Your task to perform on an android device: search for starred emails in the gmail app Image 0: 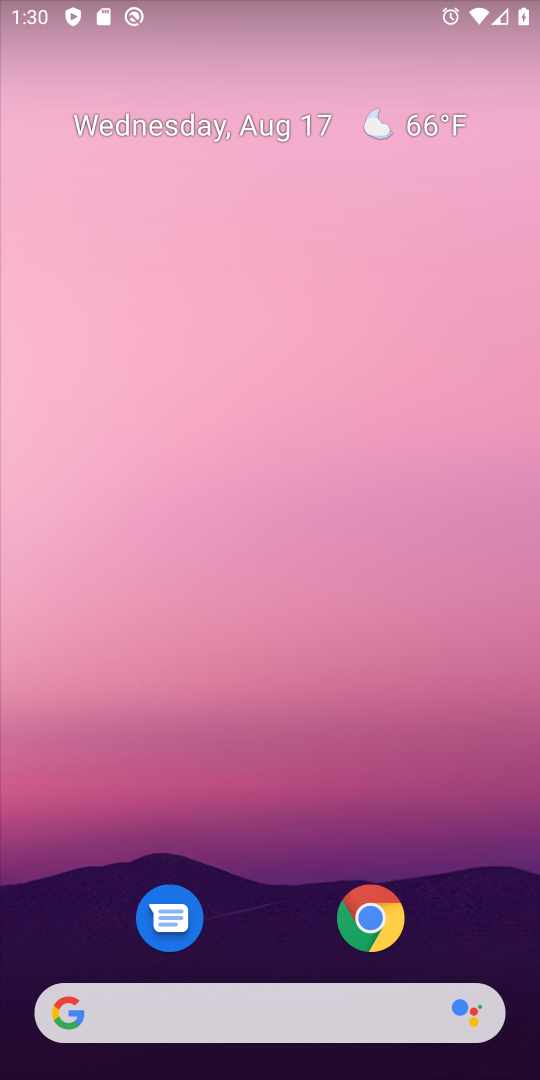
Step 0: click (276, 1004)
Your task to perform on an android device: search for starred emails in the gmail app Image 1: 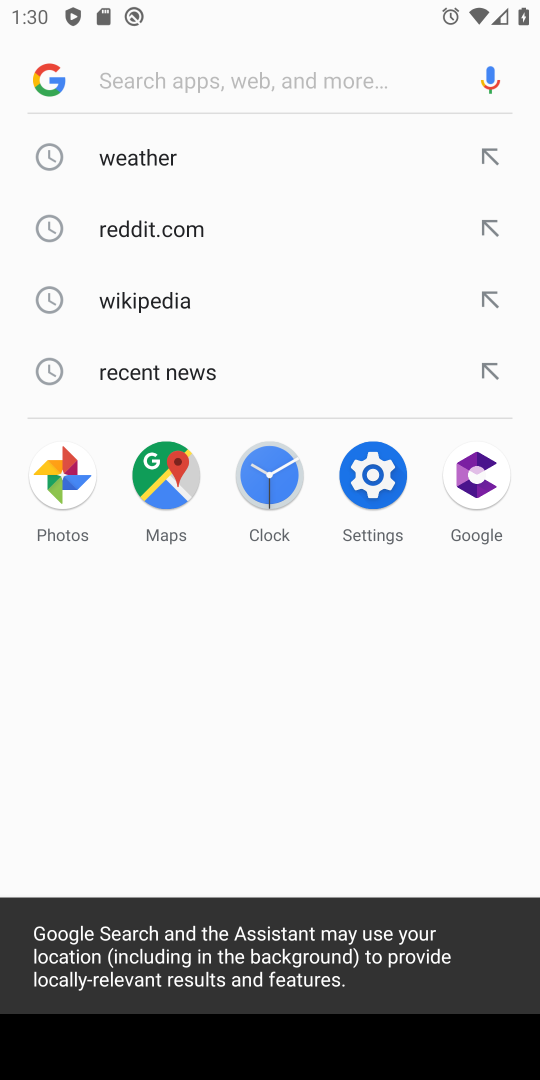
Step 1: press back button
Your task to perform on an android device: search for starred emails in the gmail app Image 2: 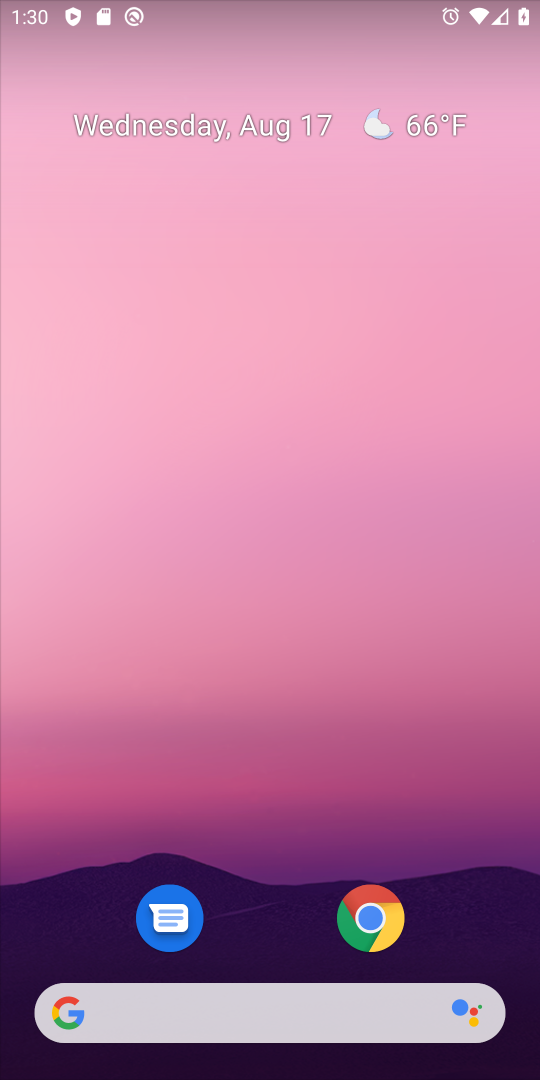
Step 2: drag from (255, 999) to (418, 7)
Your task to perform on an android device: search for starred emails in the gmail app Image 3: 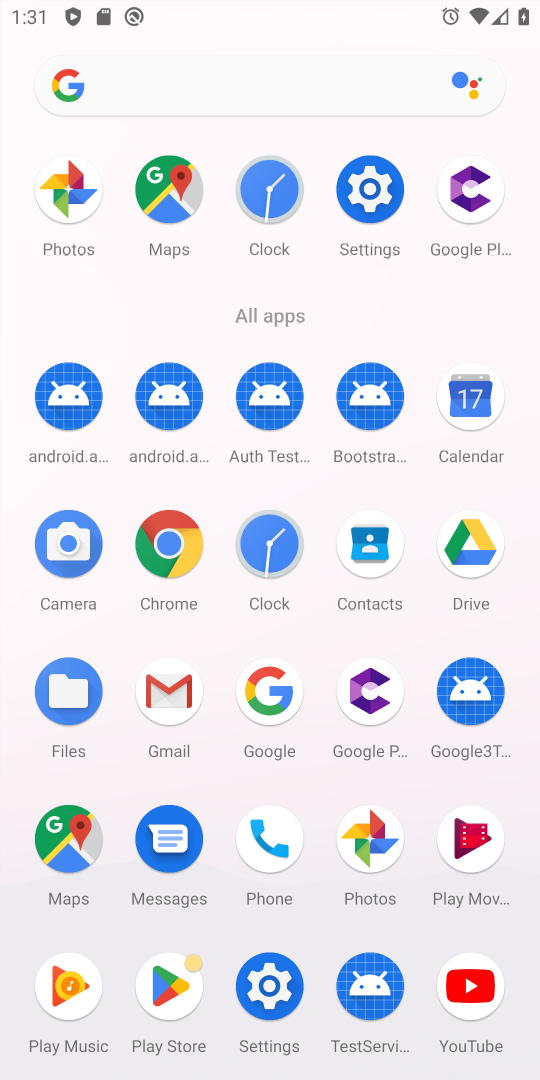
Step 3: click (180, 696)
Your task to perform on an android device: search for starred emails in the gmail app Image 4: 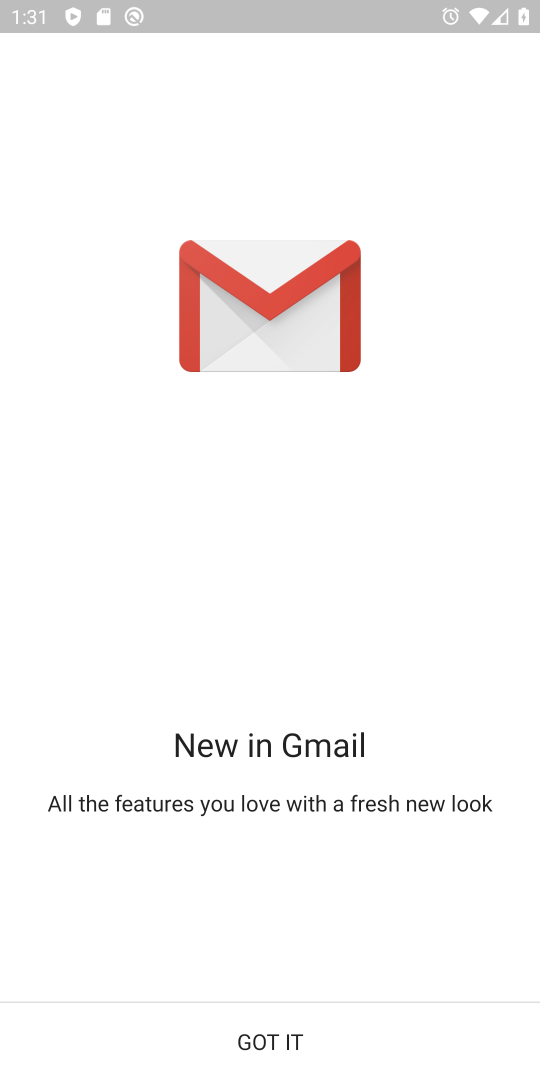
Step 4: click (197, 1030)
Your task to perform on an android device: search for starred emails in the gmail app Image 5: 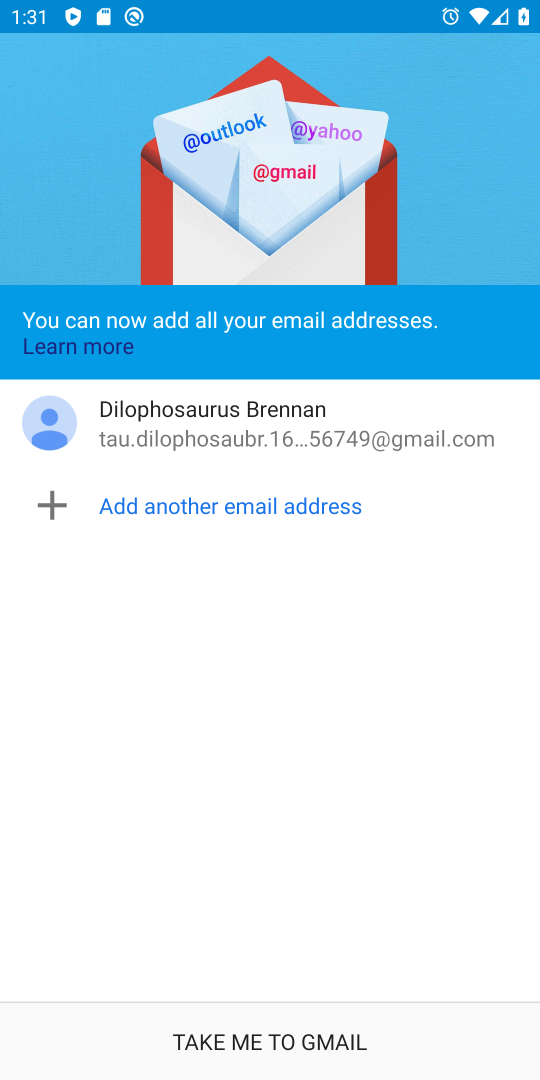
Step 5: click (197, 1030)
Your task to perform on an android device: search for starred emails in the gmail app Image 6: 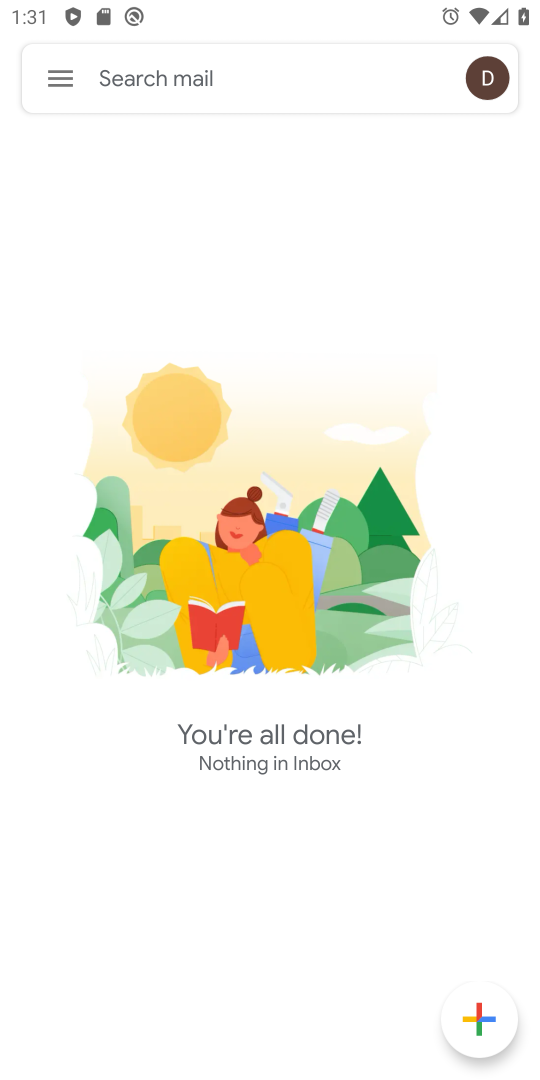
Step 6: click (59, 83)
Your task to perform on an android device: search for starred emails in the gmail app Image 7: 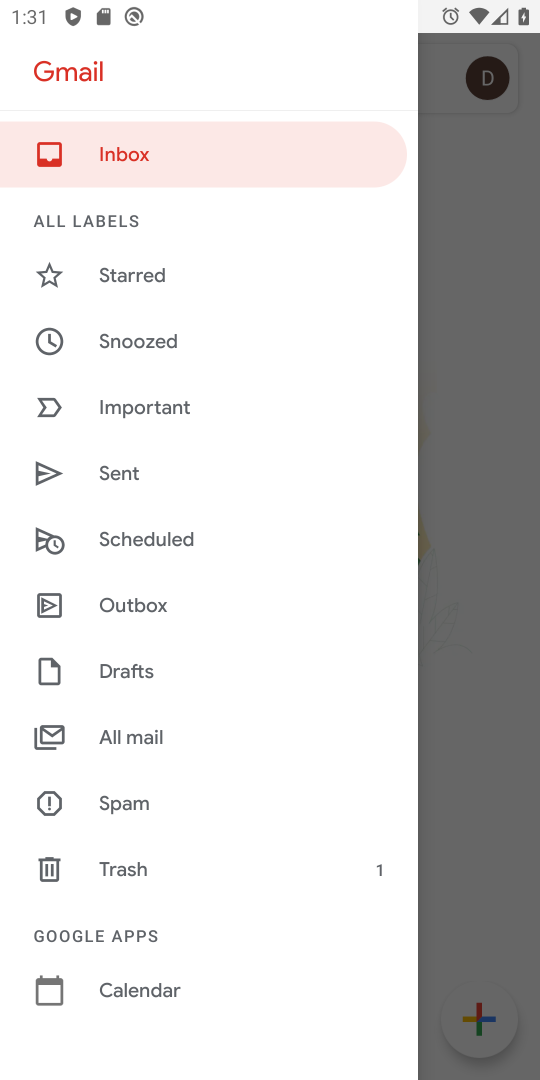
Step 7: click (116, 287)
Your task to perform on an android device: search for starred emails in the gmail app Image 8: 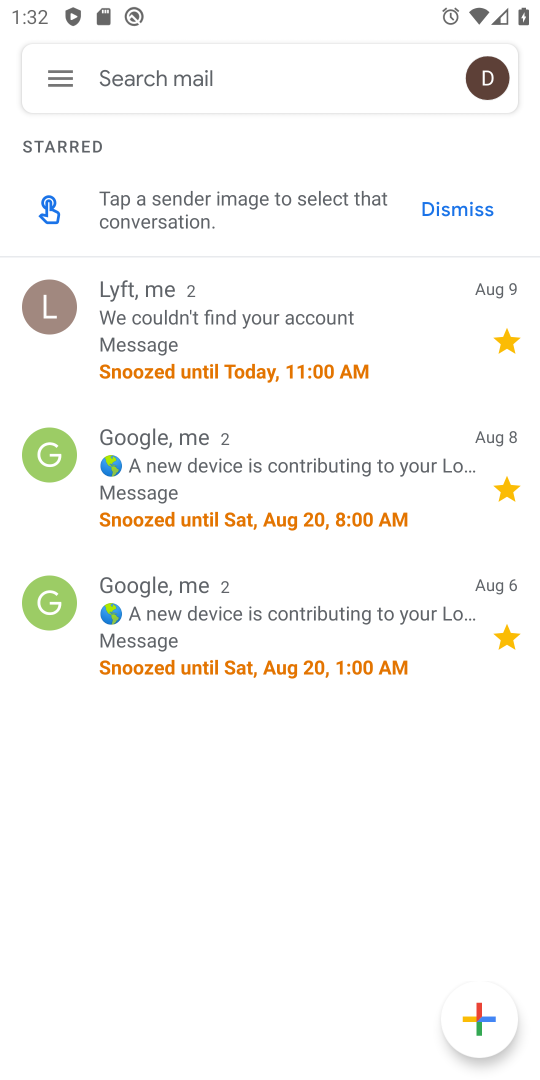
Step 8: task complete